Your task to perform on an android device: clear history in the chrome app Image 0: 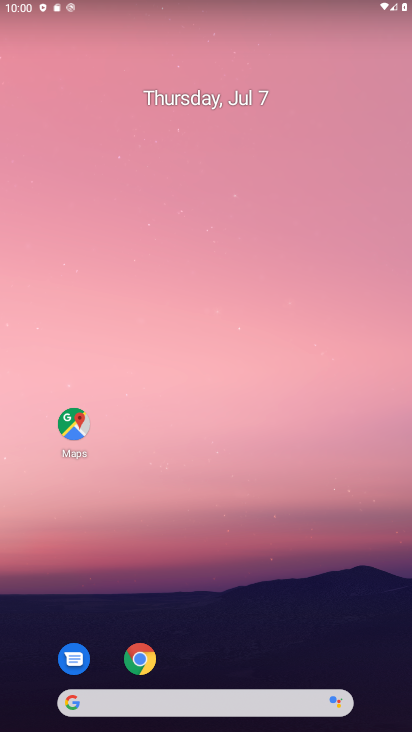
Step 0: click (234, 101)
Your task to perform on an android device: clear history in the chrome app Image 1: 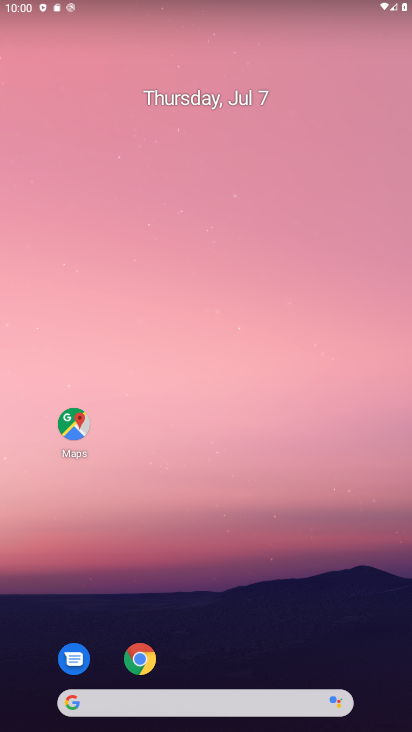
Step 1: click (139, 649)
Your task to perform on an android device: clear history in the chrome app Image 2: 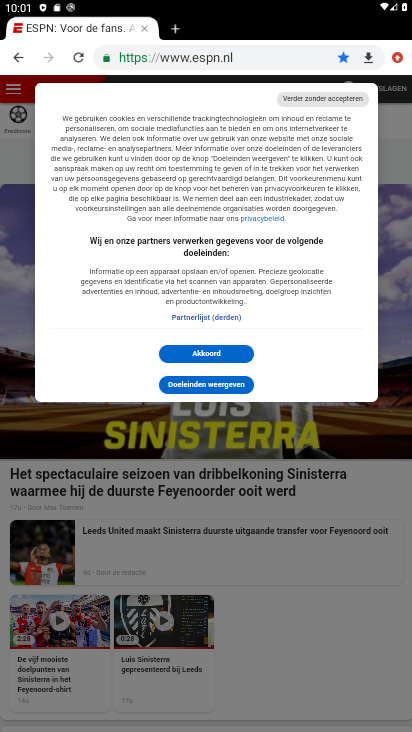
Step 2: click (401, 56)
Your task to perform on an android device: clear history in the chrome app Image 3: 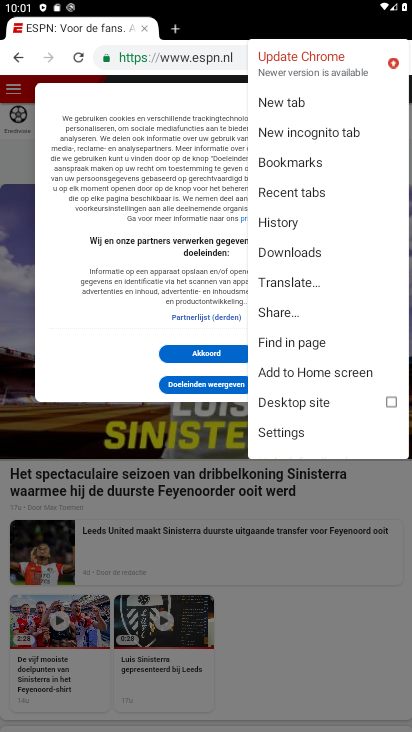
Step 3: click (280, 219)
Your task to perform on an android device: clear history in the chrome app Image 4: 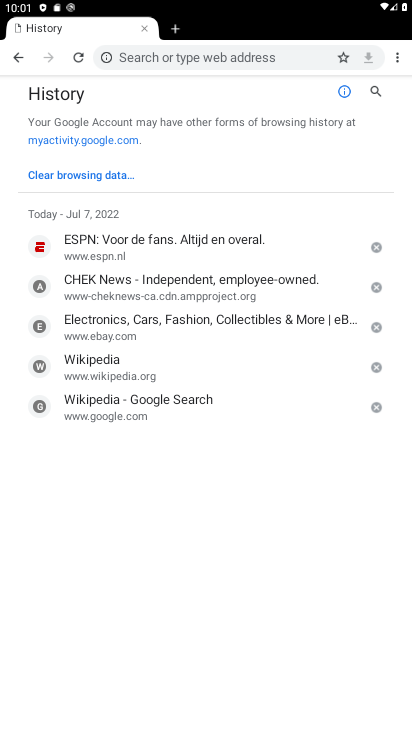
Step 4: click (76, 173)
Your task to perform on an android device: clear history in the chrome app Image 5: 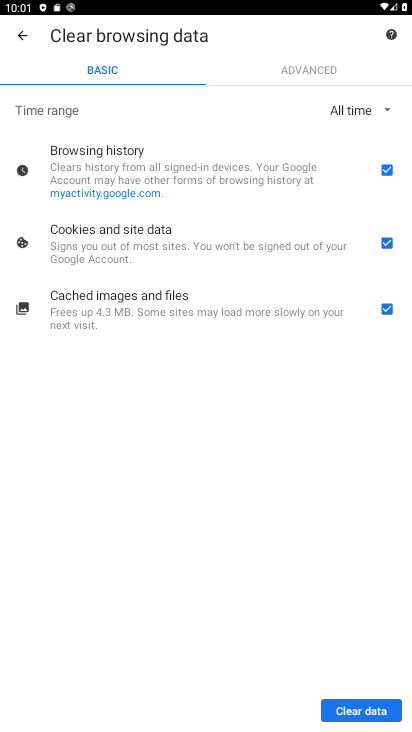
Step 5: click (347, 707)
Your task to perform on an android device: clear history in the chrome app Image 6: 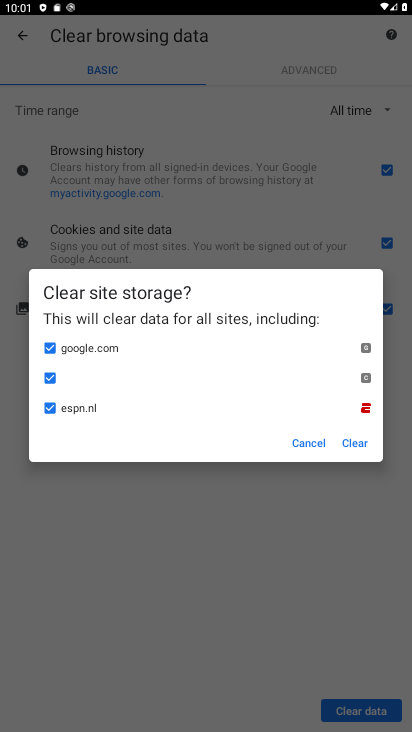
Step 6: click (349, 454)
Your task to perform on an android device: clear history in the chrome app Image 7: 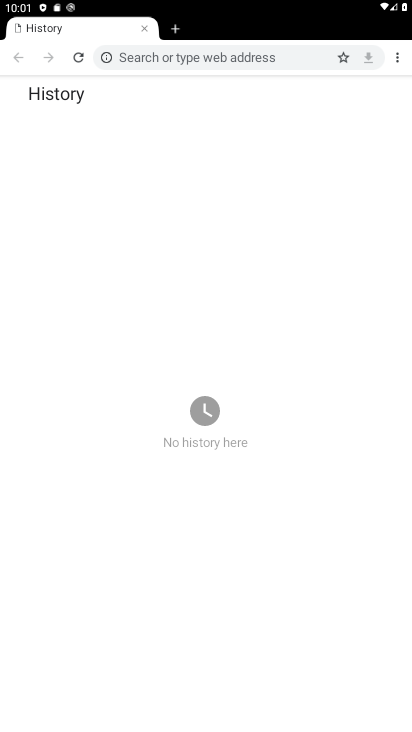
Step 7: task complete